Your task to perform on an android device: turn off notifications settings in the gmail app Image 0: 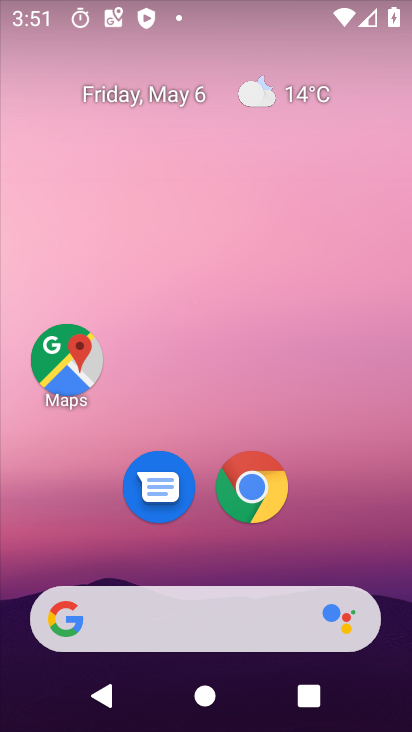
Step 0: drag from (317, 530) to (222, 14)
Your task to perform on an android device: turn off notifications settings in the gmail app Image 1: 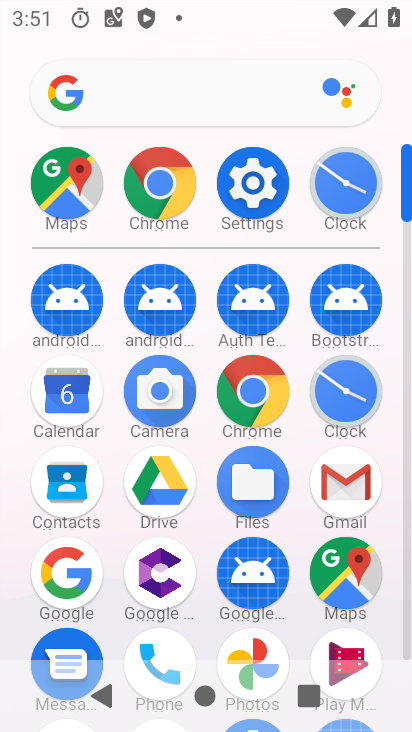
Step 1: click (342, 478)
Your task to perform on an android device: turn off notifications settings in the gmail app Image 2: 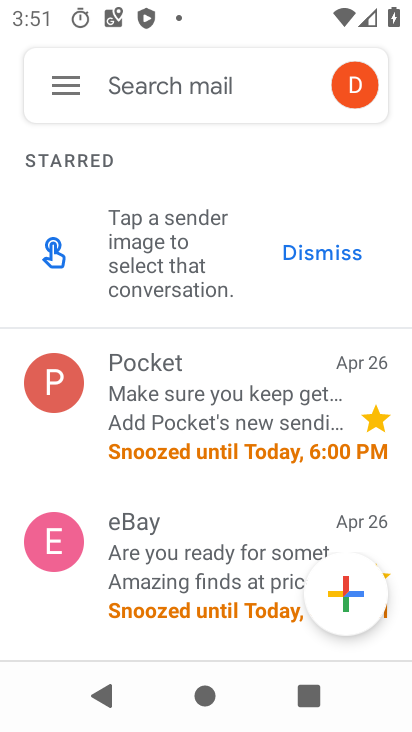
Step 2: click (67, 88)
Your task to perform on an android device: turn off notifications settings in the gmail app Image 3: 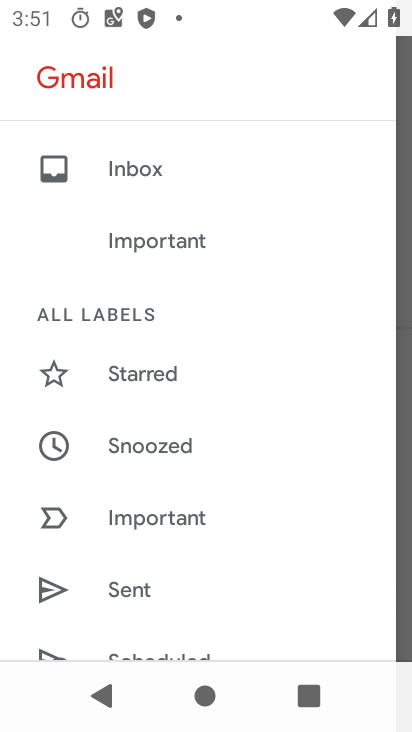
Step 3: drag from (188, 546) to (170, 170)
Your task to perform on an android device: turn off notifications settings in the gmail app Image 4: 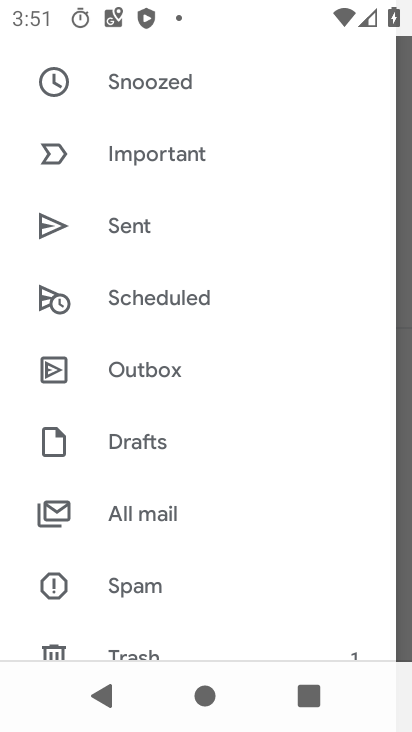
Step 4: drag from (231, 529) to (230, 233)
Your task to perform on an android device: turn off notifications settings in the gmail app Image 5: 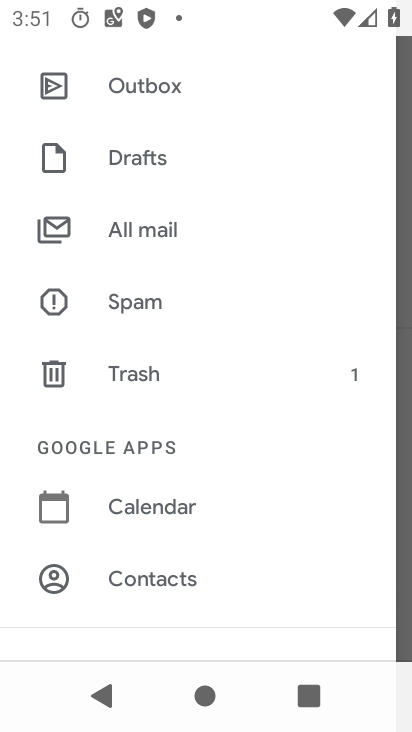
Step 5: drag from (242, 528) to (215, 214)
Your task to perform on an android device: turn off notifications settings in the gmail app Image 6: 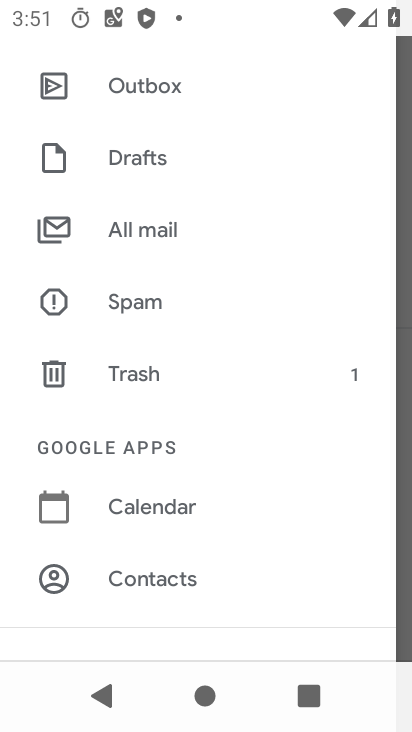
Step 6: drag from (226, 508) to (194, 192)
Your task to perform on an android device: turn off notifications settings in the gmail app Image 7: 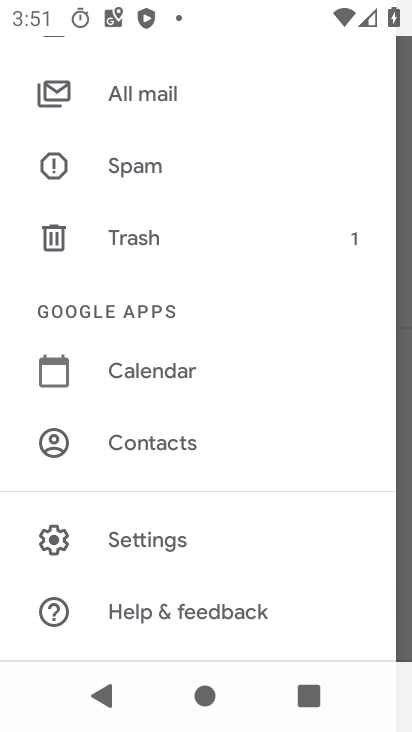
Step 7: click (130, 537)
Your task to perform on an android device: turn off notifications settings in the gmail app Image 8: 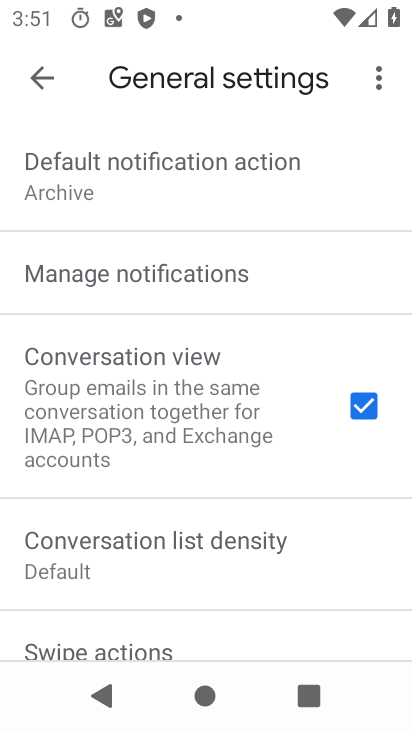
Step 8: click (126, 270)
Your task to perform on an android device: turn off notifications settings in the gmail app Image 9: 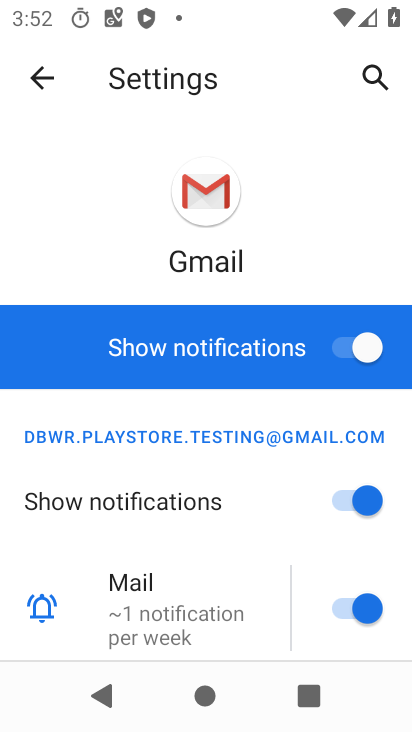
Step 9: click (361, 344)
Your task to perform on an android device: turn off notifications settings in the gmail app Image 10: 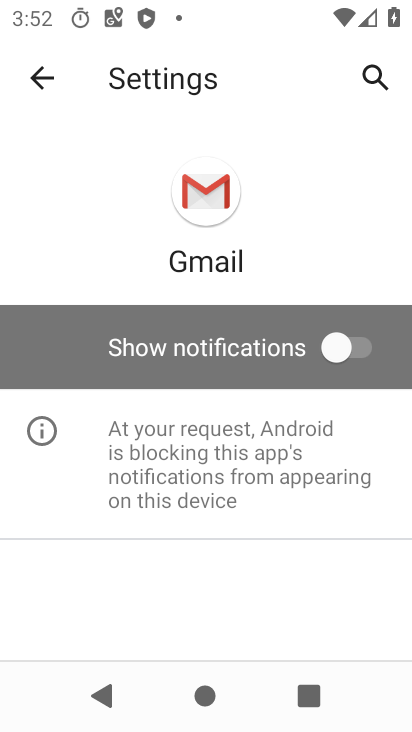
Step 10: task complete